Your task to perform on an android device: What's the weather going to be this weekend? Image 0: 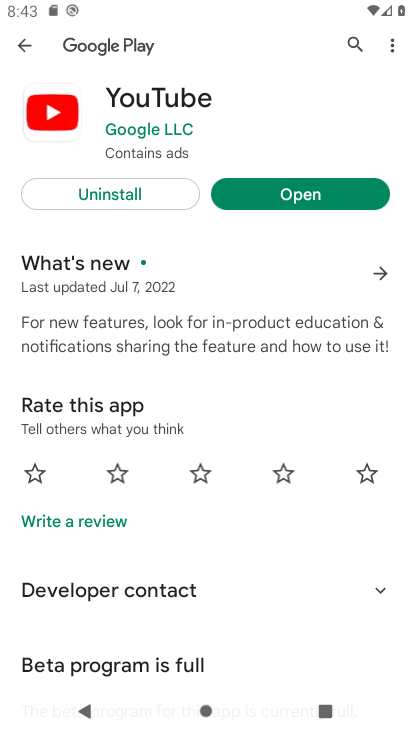
Step 0: press home button
Your task to perform on an android device: What's the weather going to be this weekend? Image 1: 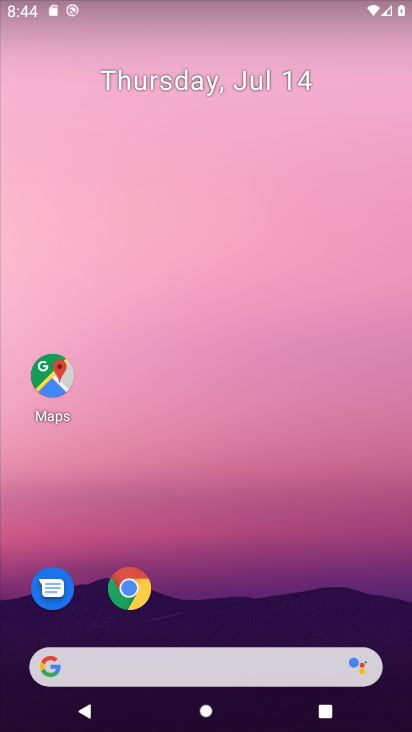
Step 1: click (269, 661)
Your task to perform on an android device: What's the weather going to be this weekend? Image 2: 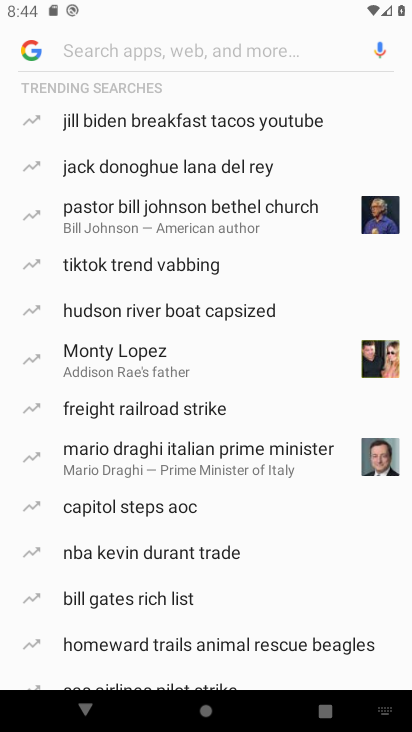
Step 2: type "weather"
Your task to perform on an android device: What's the weather going to be this weekend? Image 3: 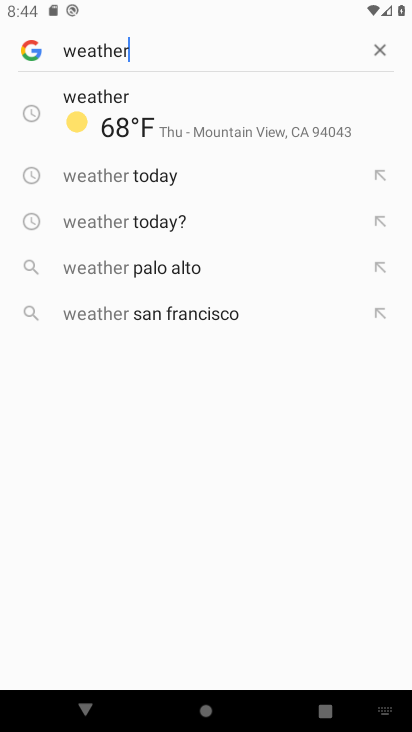
Step 3: click (273, 127)
Your task to perform on an android device: What's the weather going to be this weekend? Image 4: 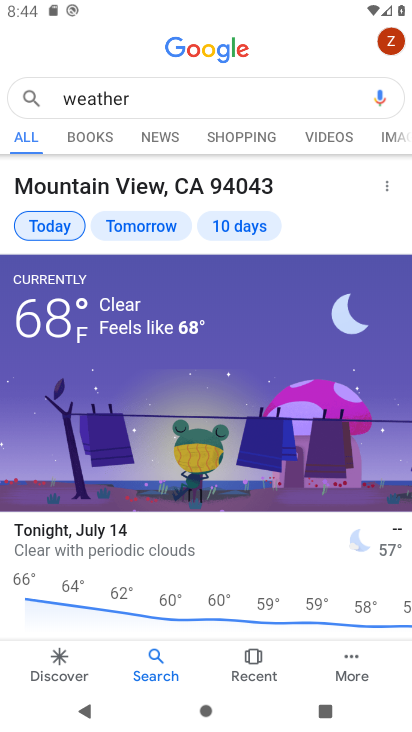
Step 4: click (241, 222)
Your task to perform on an android device: What's the weather going to be this weekend? Image 5: 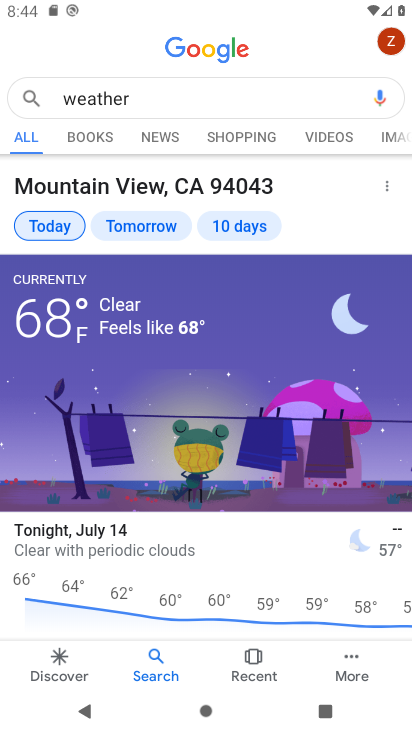
Step 5: click (241, 222)
Your task to perform on an android device: What's the weather going to be this weekend? Image 6: 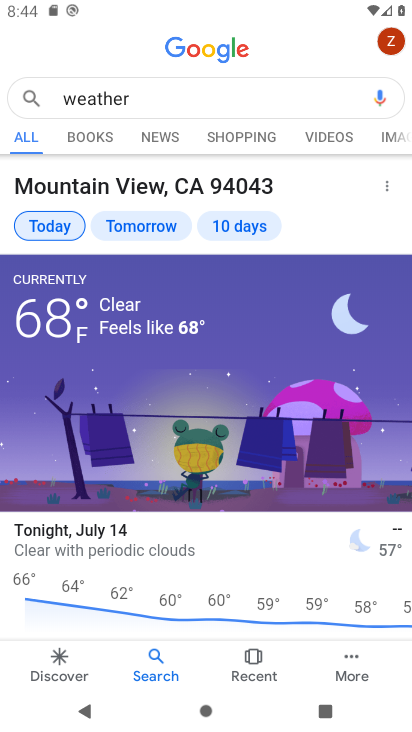
Step 6: click (241, 222)
Your task to perform on an android device: What's the weather going to be this weekend? Image 7: 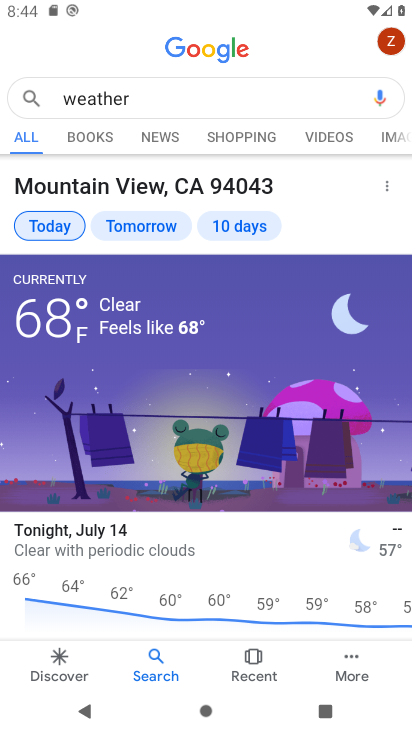
Step 7: click (241, 222)
Your task to perform on an android device: What's the weather going to be this weekend? Image 8: 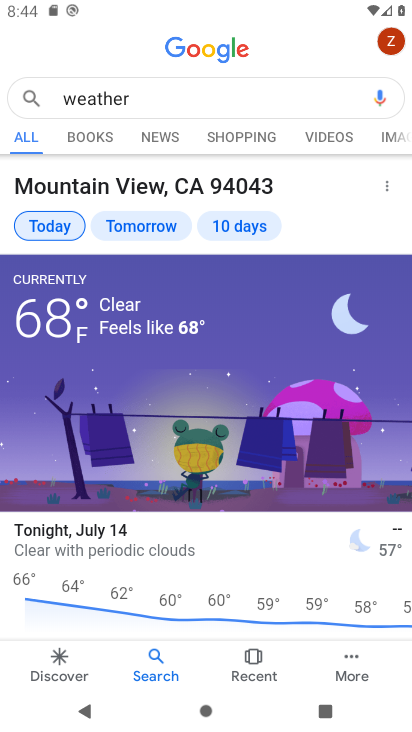
Step 8: click (241, 222)
Your task to perform on an android device: What's the weather going to be this weekend? Image 9: 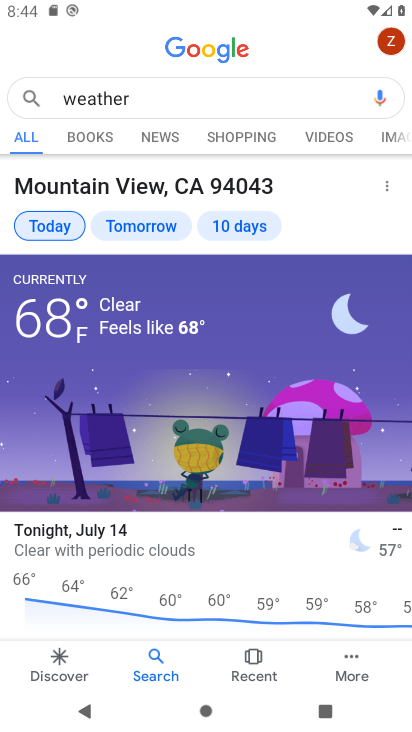
Step 9: click (241, 222)
Your task to perform on an android device: What's the weather going to be this weekend? Image 10: 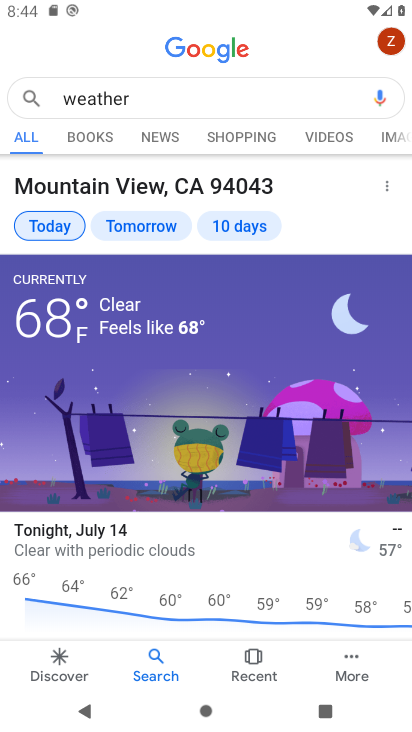
Step 10: click (241, 222)
Your task to perform on an android device: What's the weather going to be this weekend? Image 11: 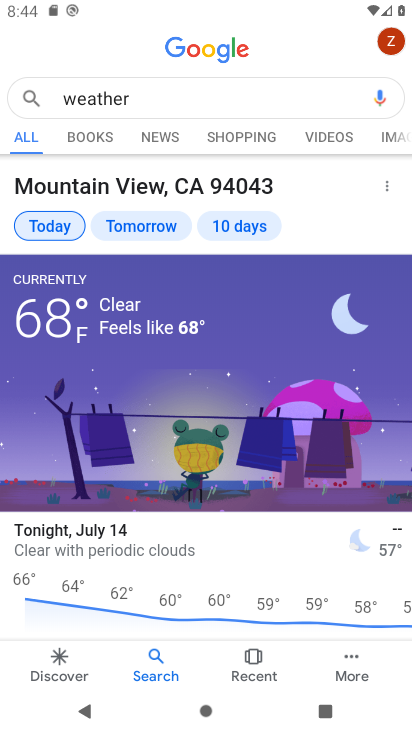
Step 11: click (241, 222)
Your task to perform on an android device: What's the weather going to be this weekend? Image 12: 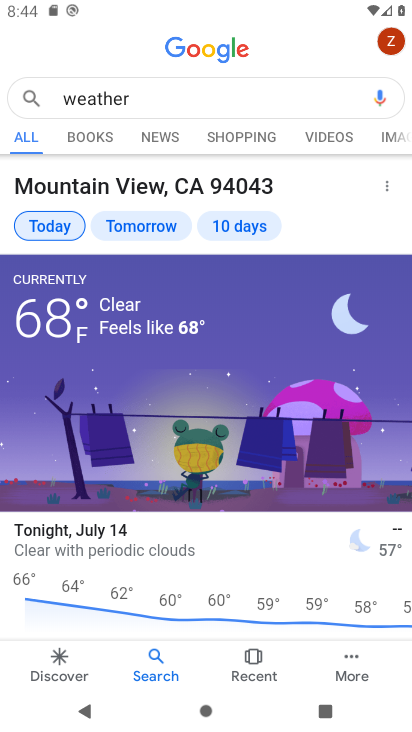
Step 12: click (241, 222)
Your task to perform on an android device: What's the weather going to be this weekend? Image 13: 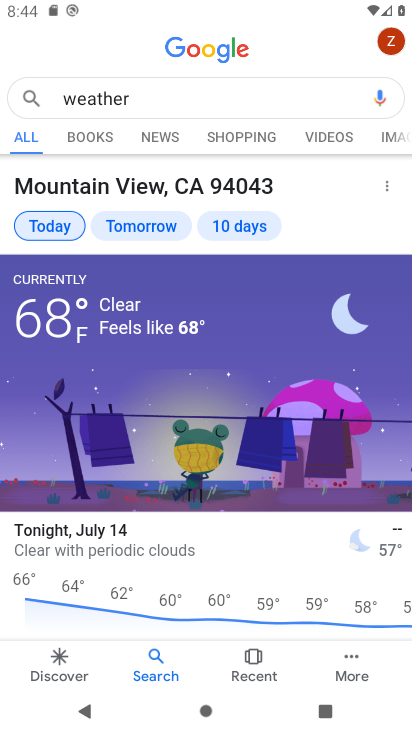
Step 13: click (241, 222)
Your task to perform on an android device: What's the weather going to be this weekend? Image 14: 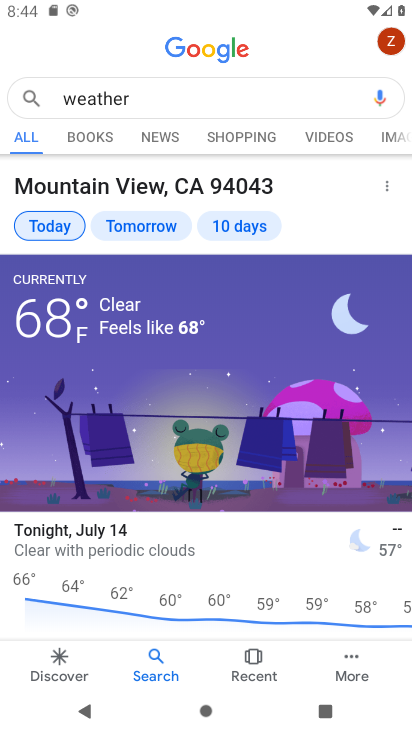
Step 14: click (241, 222)
Your task to perform on an android device: What's the weather going to be this weekend? Image 15: 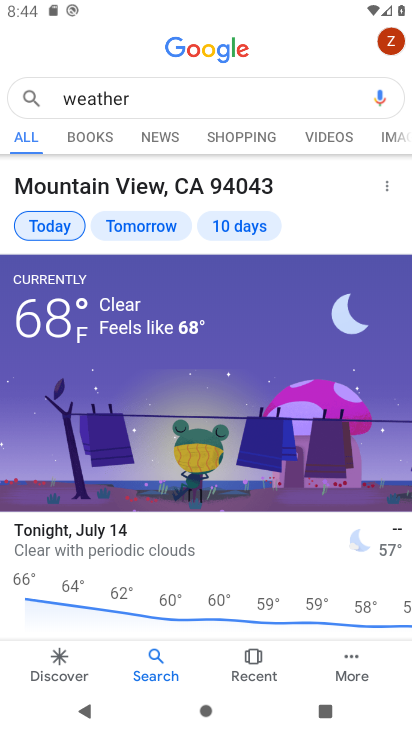
Step 15: click (241, 222)
Your task to perform on an android device: What's the weather going to be this weekend? Image 16: 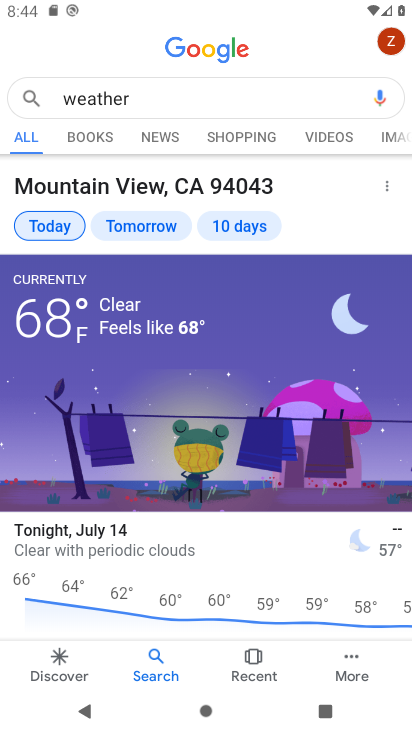
Step 16: click (241, 222)
Your task to perform on an android device: What's the weather going to be this weekend? Image 17: 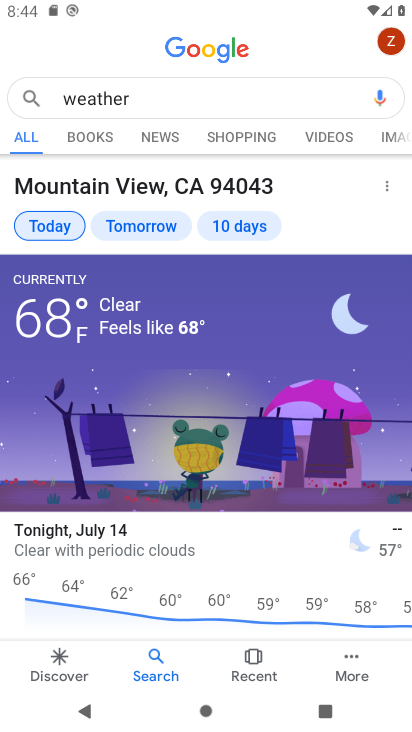
Step 17: click (241, 222)
Your task to perform on an android device: What's the weather going to be this weekend? Image 18: 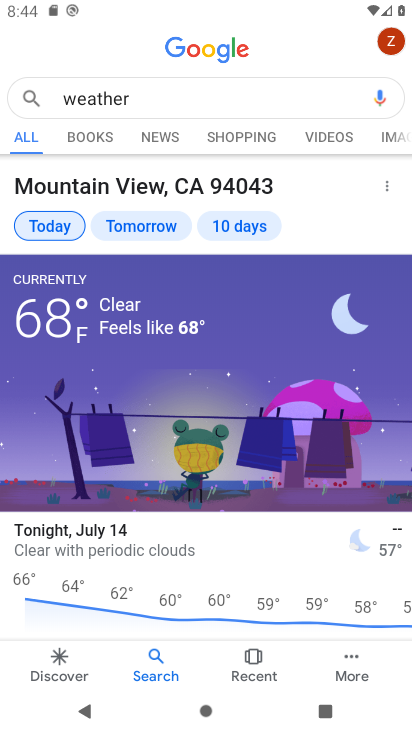
Step 18: click (241, 222)
Your task to perform on an android device: What's the weather going to be this weekend? Image 19: 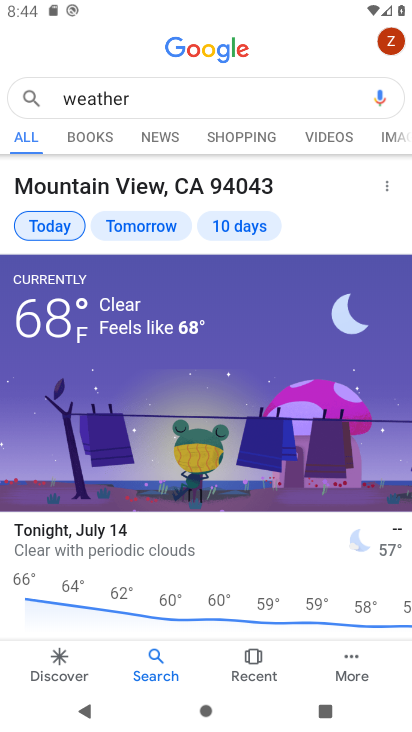
Step 19: click (241, 222)
Your task to perform on an android device: What's the weather going to be this weekend? Image 20: 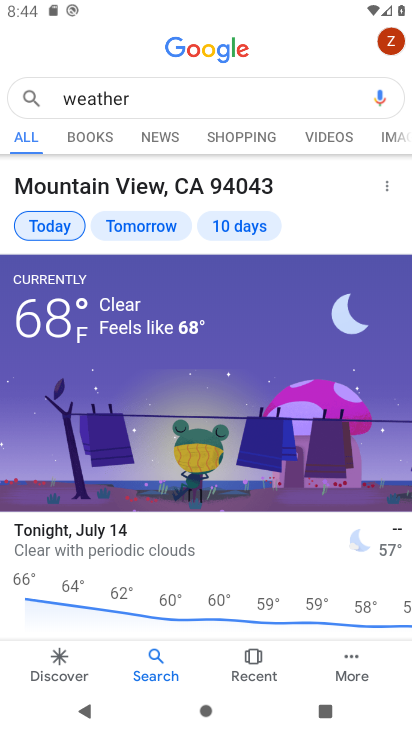
Step 20: click (241, 222)
Your task to perform on an android device: What's the weather going to be this weekend? Image 21: 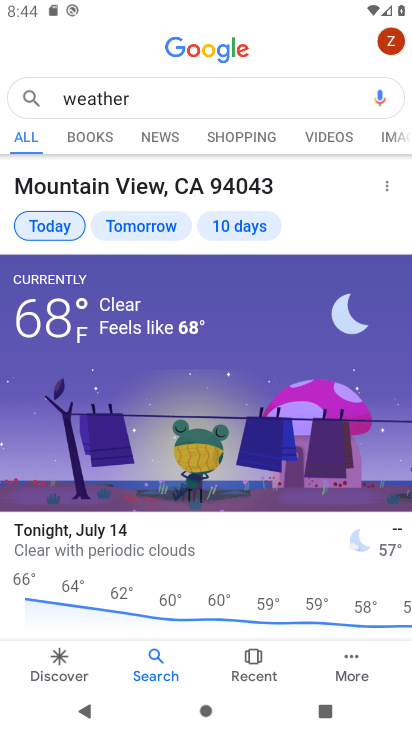
Step 21: click (241, 222)
Your task to perform on an android device: What's the weather going to be this weekend? Image 22: 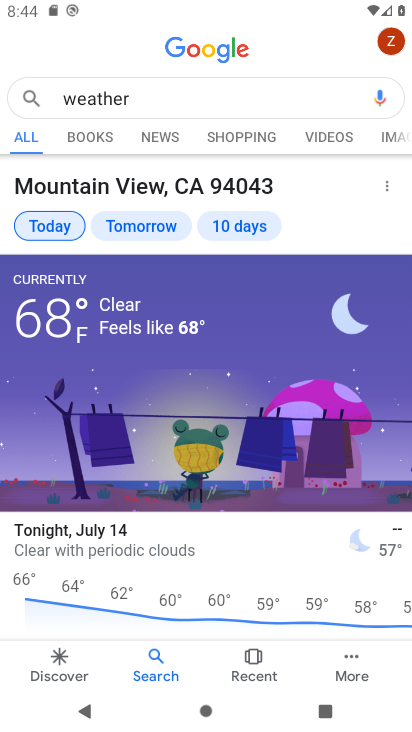
Step 22: task complete